Your task to perform on an android device: When is my next meeting? Image 0: 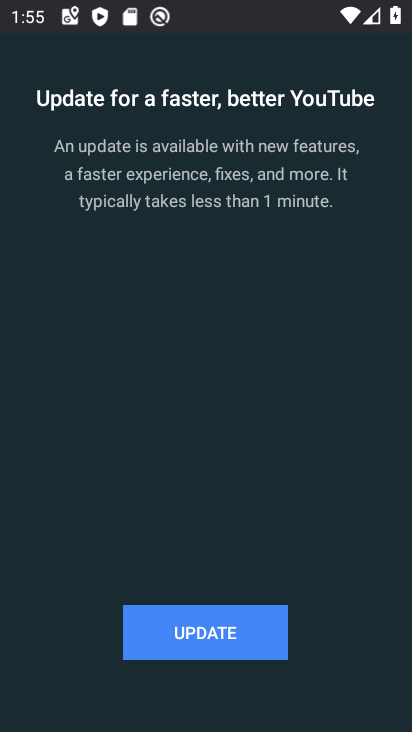
Step 0: press home button
Your task to perform on an android device: When is my next meeting? Image 1: 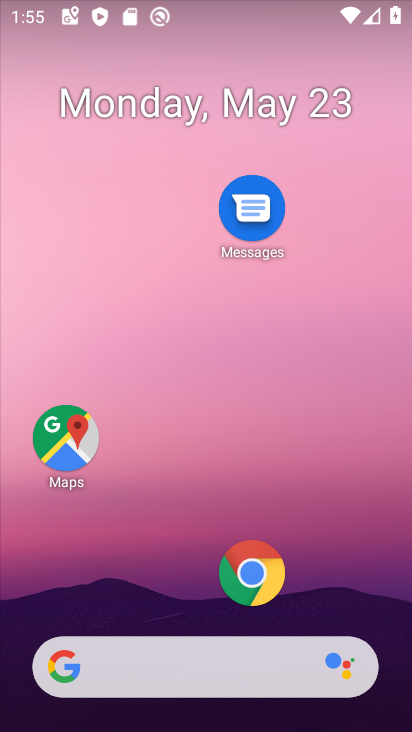
Step 1: drag from (164, 562) to (178, 250)
Your task to perform on an android device: When is my next meeting? Image 2: 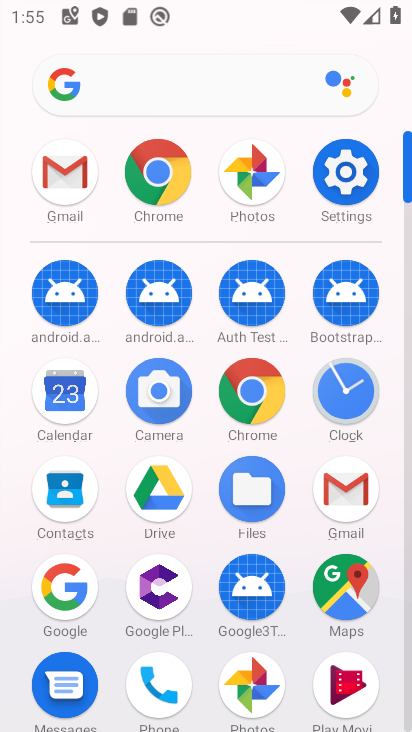
Step 2: click (68, 409)
Your task to perform on an android device: When is my next meeting? Image 3: 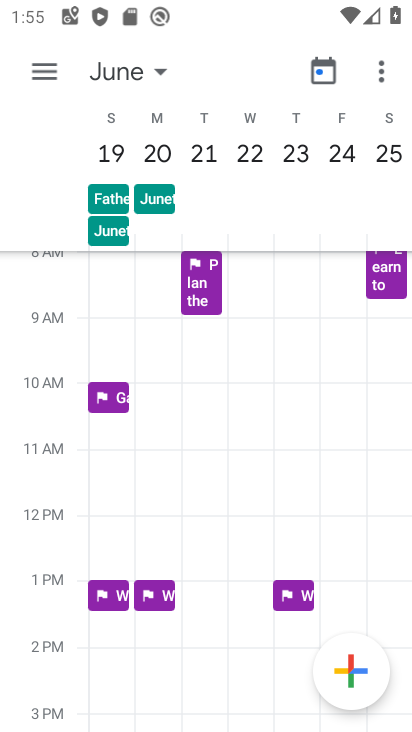
Step 3: drag from (91, 162) to (390, 170)
Your task to perform on an android device: When is my next meeting? Image 4: 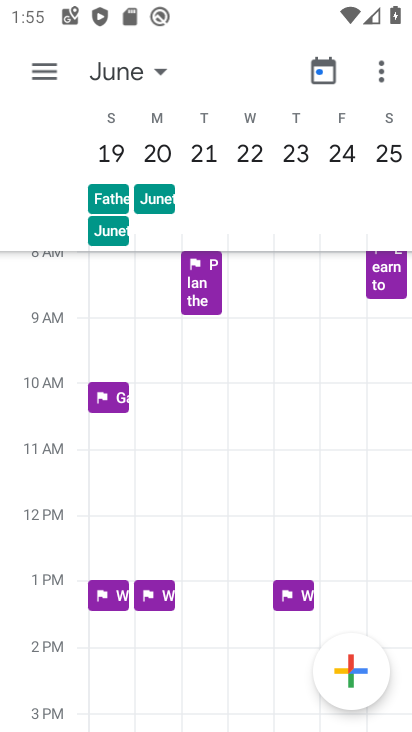
Step 4: click (150, 62)
Your task to perform on an android device: When is my next meeting? Image 5: 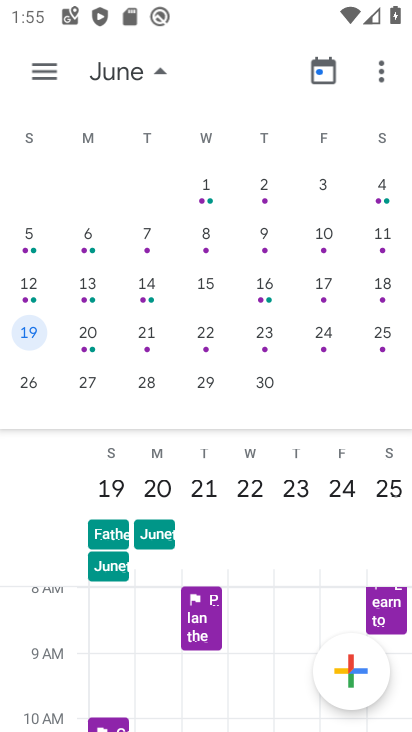
Step 5: click (405, 315)
Your task to perform on an android device: When is my next meeting? Image 6: 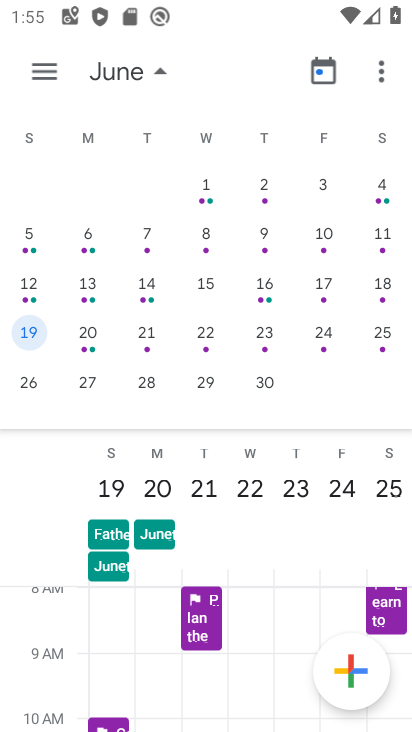
Step 6: drag from (7, 179) to (266, 181)
Your task to perform on an android device: When is my next meeting? Image 7: 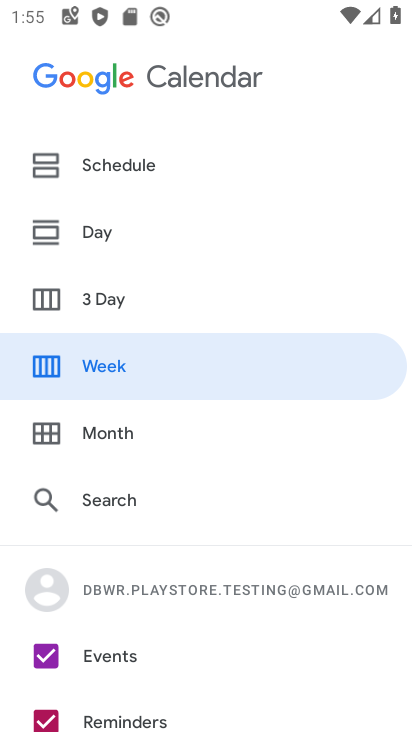
Step 7: drag from (406, 237) to (84, 212)
Your task to perform on an android device: When is my next meeting? Image 8: 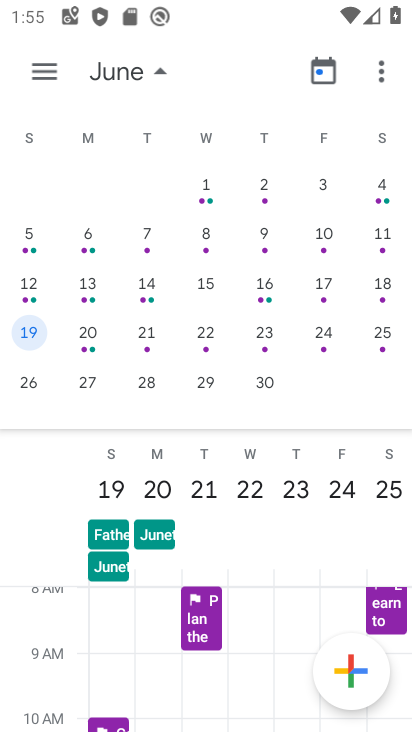
Step 8: click (237, 248)
Your task to perform on an android device: When is my next meeting? Image 9: 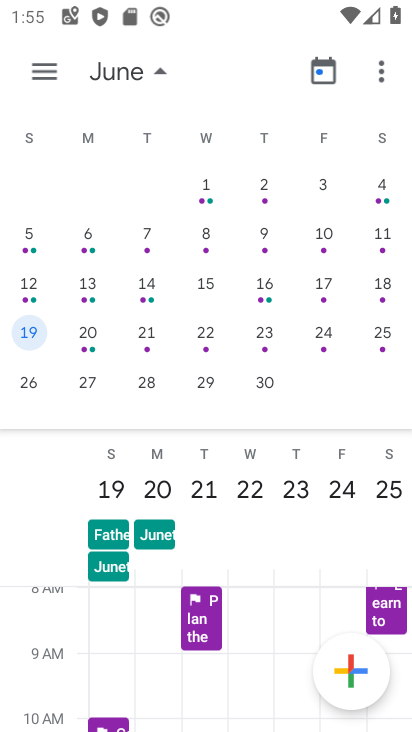
Step 9: drag from (252, 246) to (329, 256)
Your task to perform on an android device: When is my next meeting? Image 10: 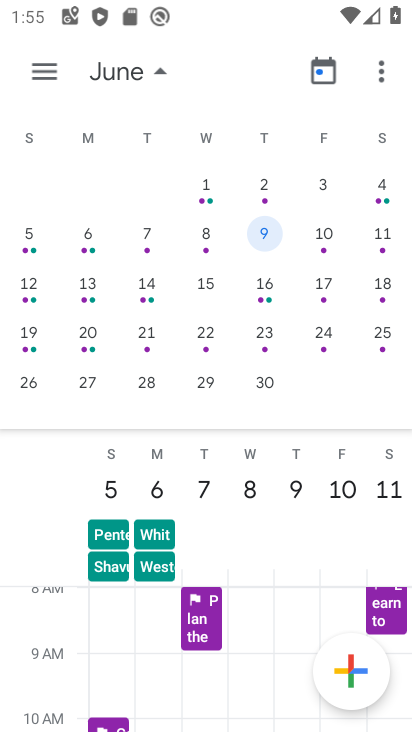
Step 10: drag from (168, 199) to (334, 226)
Your task to perform on an android device: When is my next meeting? Image 11: 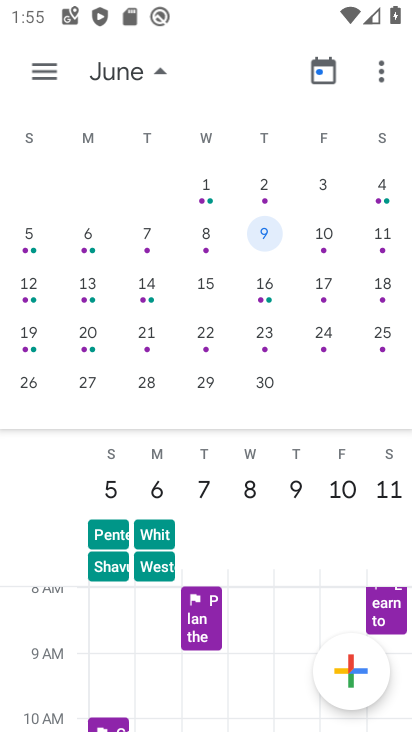
Step 11: drag from (125, 189) to (390, 226)
Your task to perform on an android device: When is my next meeting? Image 12: 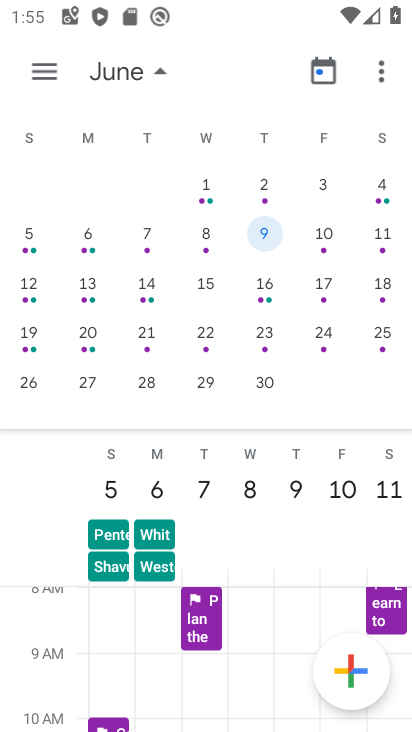
Step 12: drag from (98, 232) to (330, 237)
Your task to perform on an android device: When is my next meeting? Image 13: 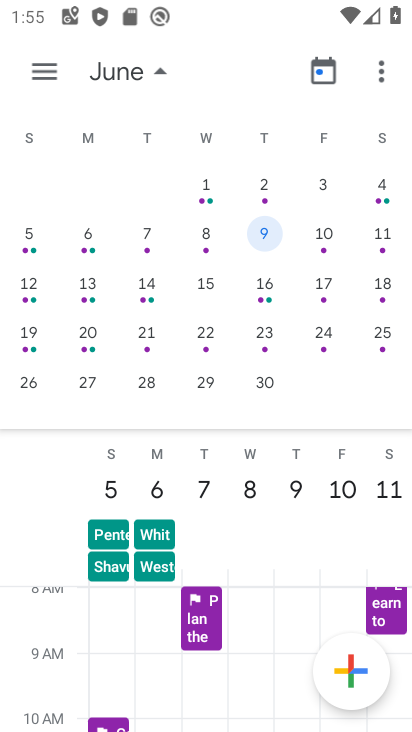
Step 13: drag from (131, 192) to (271, 197)
Your task to perform on an android device: When is my next meeting? Image 14: 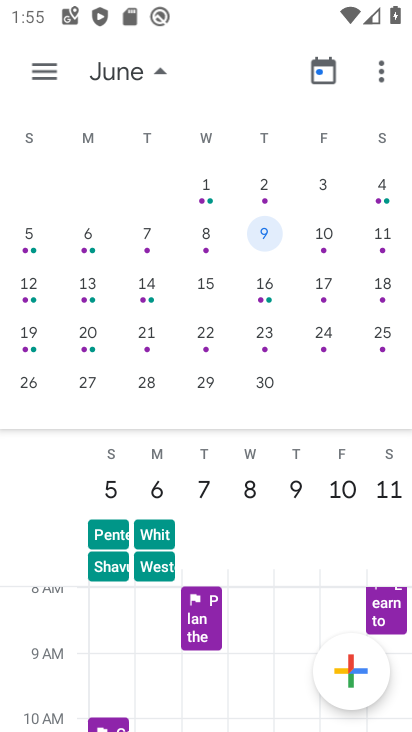
Step 14: click (114, 74)
Your task to perform on an android device: When is my next meeting? Image 15: 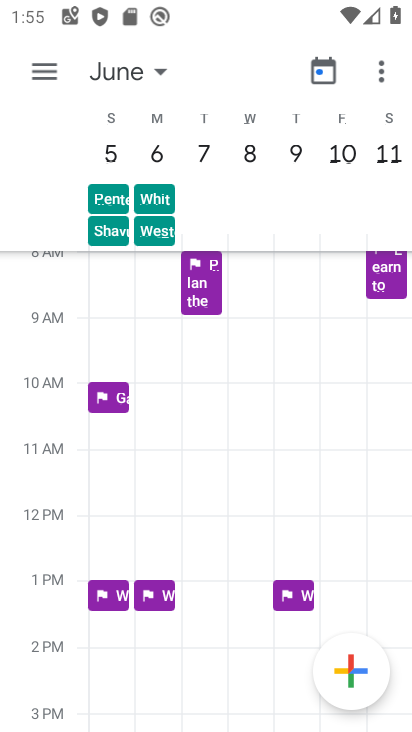
Step 15: click (114, 74)
Your task to perform on an android device: When is my next meeting? Image 16: 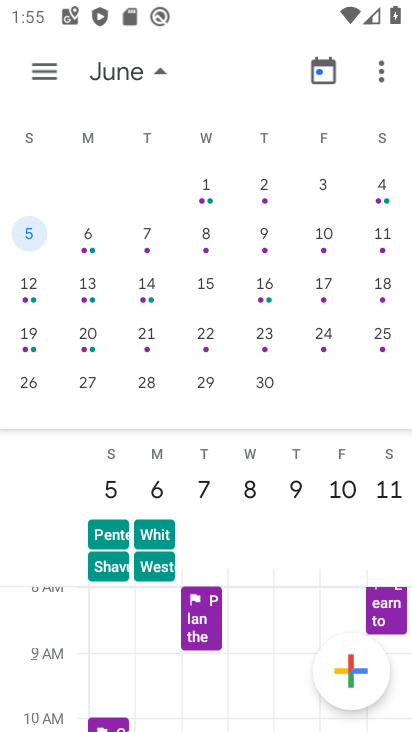
Step 16: click (114, 73)
Your task to perform on an android device: When is my next meeting? Image 17: 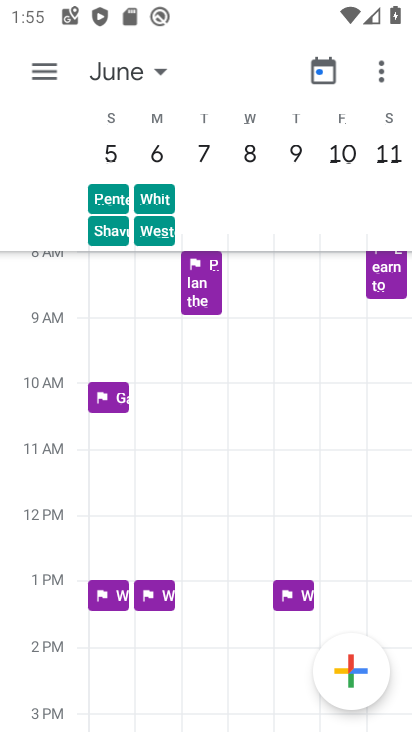
Step 17: click (115, 75)
Your task to perform on an android device: When is my next meeting? Image 18: 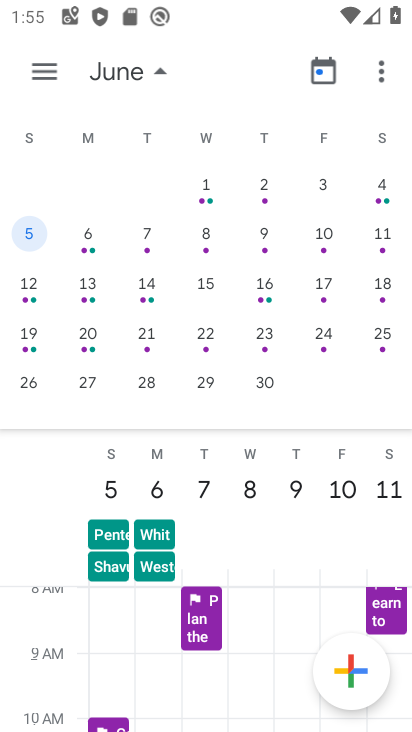
Step 18: click (116, 74)
Your task to perform on an android device: When is my next meeting? Image 19: 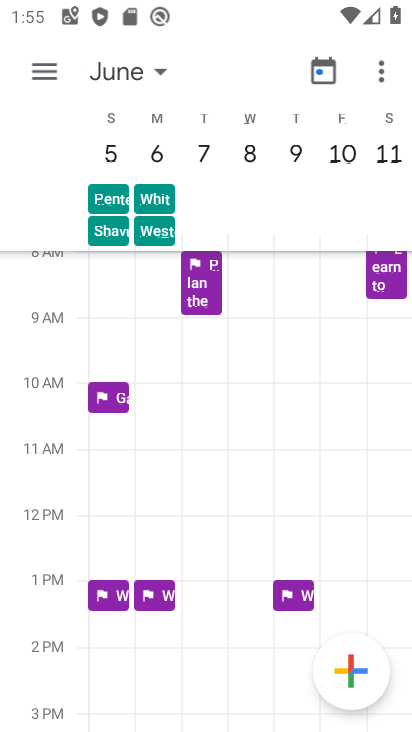
Step 19: click (326, 71)
Your task to perform on an android device: When is my next meeting? Image 20: 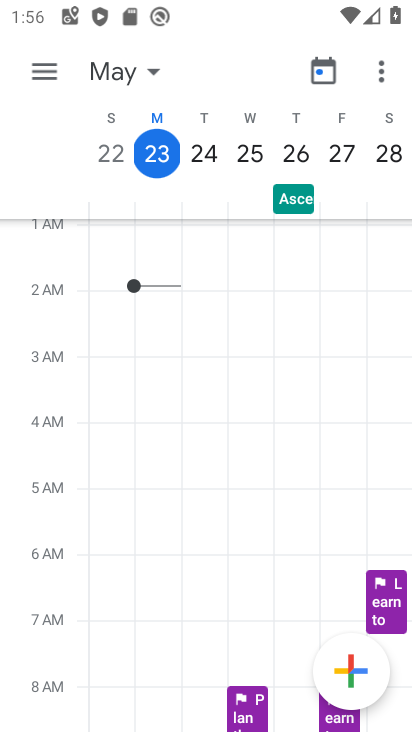
Step 20: click (171, 155)
Your task to perform on an android device: When is my next meeting? Image 21: 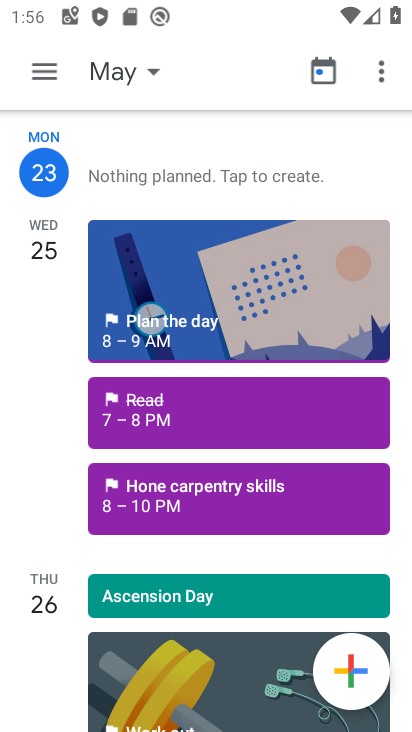
Step 21: task complete